Your task to perform on an android device: Do I have any events today? Image 0: 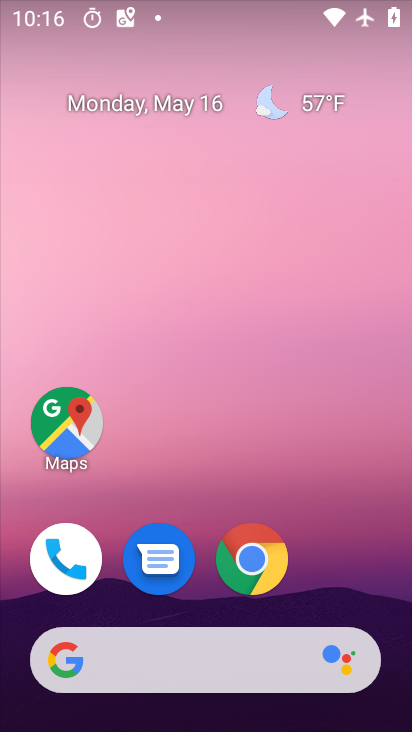
Step 0: drag from (323, 414) to (322, 151)
Your task to perform on an android device: Do I have any events today? Image 1: 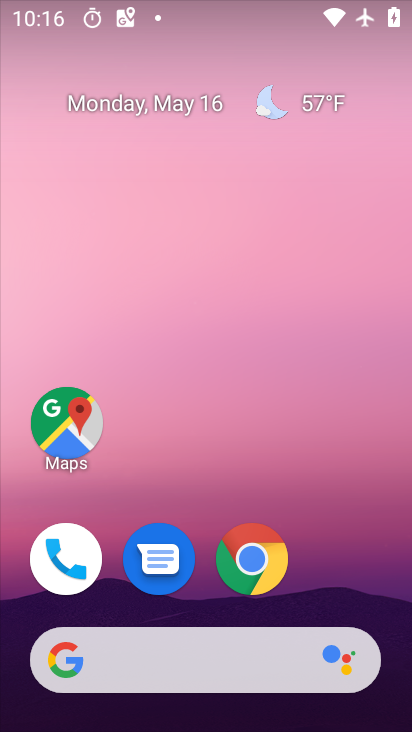
Step 1: drag from (334, 581) to (362, 178)
Your task to perform on an android device: Do I have any events today? Image 2: 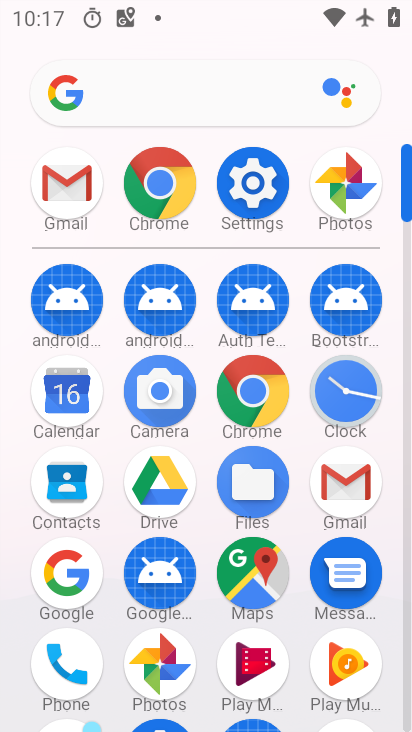
Step 2: click (73, 369)
Your task to perform on an android device: Do I have any events today? Image 3: 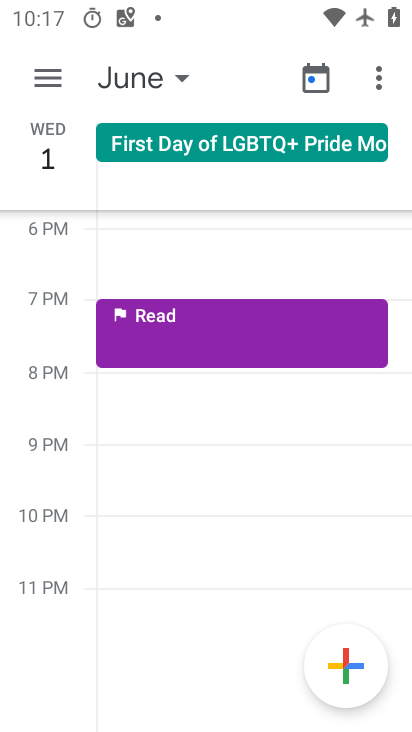
Step 3: click (145, 83)
Your task to perform on an android device: Do I have any events today? Image 4: 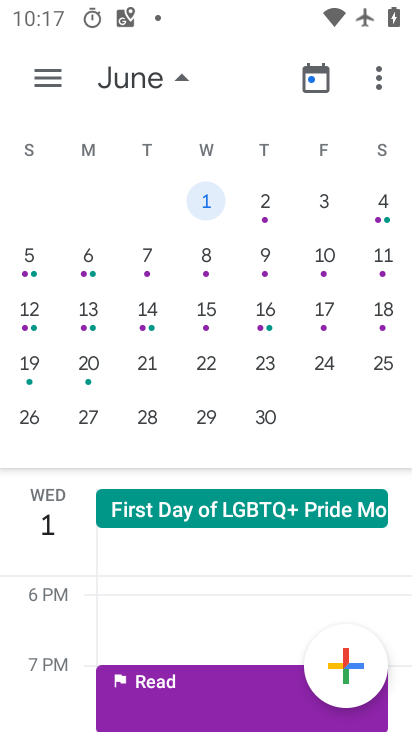
Step 4: drag from (41, 301) to (378, 343)
Your task to perform on an android device: Do I have any events today? Image 5: 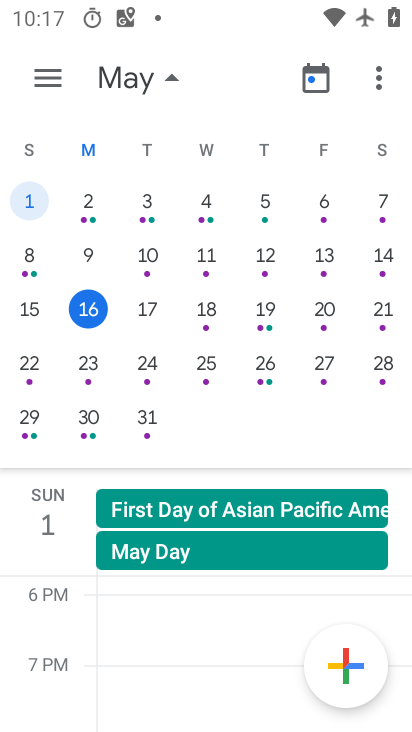
Step 5: click (93, 302)
Your task to perform on an android device: Do I have any events today? Image 6: 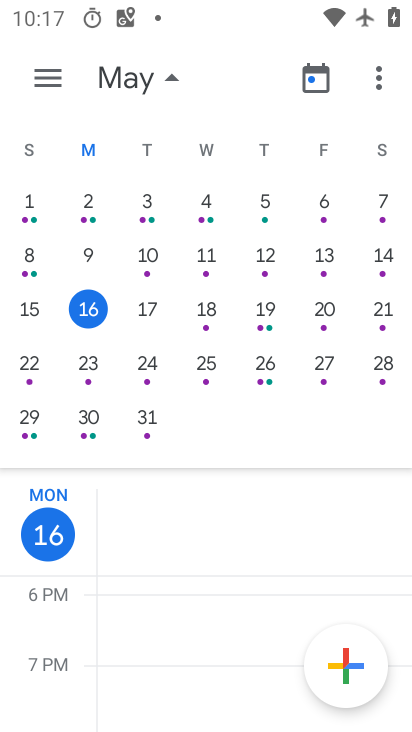
Step 6: task complete